Your task to perform on an android device: Open the phone app and click the voicemail tab. Image 0: 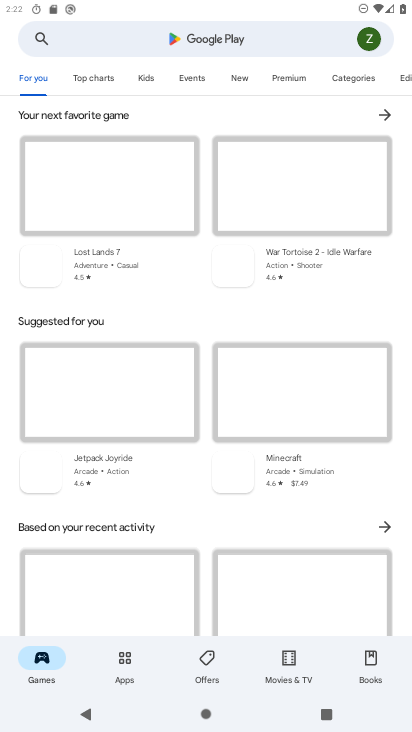
Step 0: press home button
Your task to perform on an android device: Open the phone app and click the voicemail tab. Image 1: 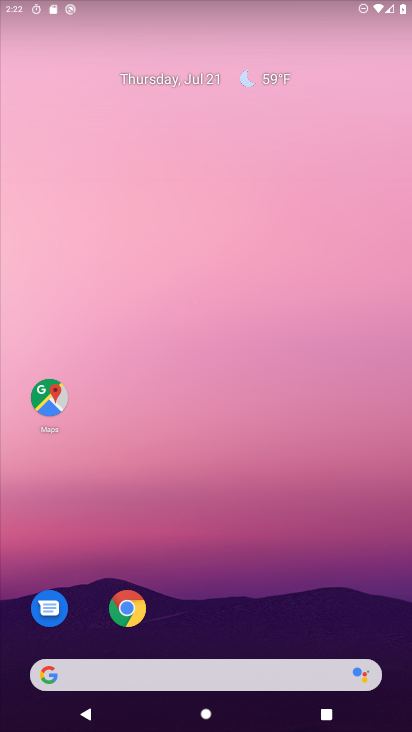
Step 1: drag from (251, 577) to (326, 18)
Your task to perform on an android device: Open the phone app and click the voicemail tab. Image 2: 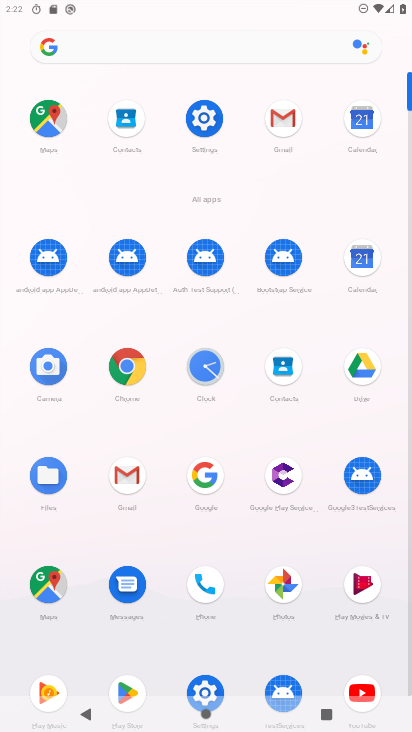
Step 2: click (204, 591)
Your task to perform on an android device: Open the phone app and click the voicemail tab. Image 3: 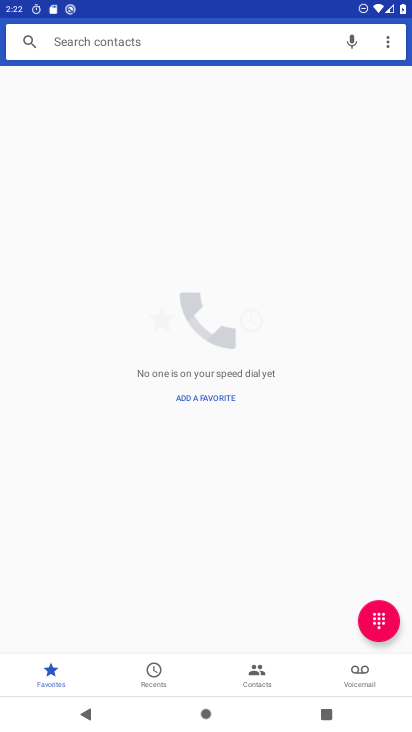
Step 3: click (359, 677)
Your task to perform on an android device: Open the phone app and click the voicemail tab. Image 4: 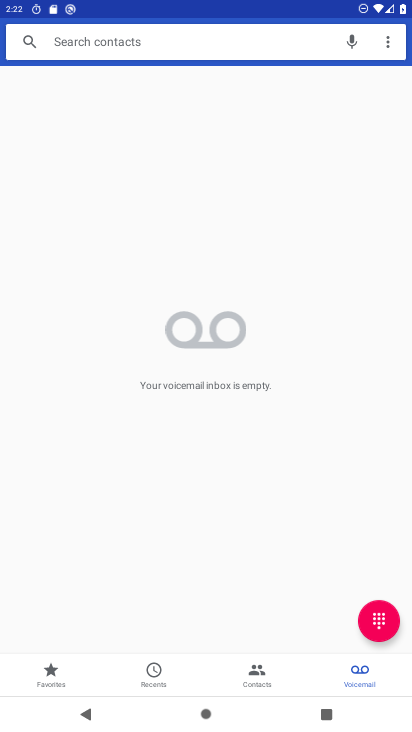
Step 4: task complete